Your task to perform on an android device: How do I get to the nearest McDonalds? Image 0: 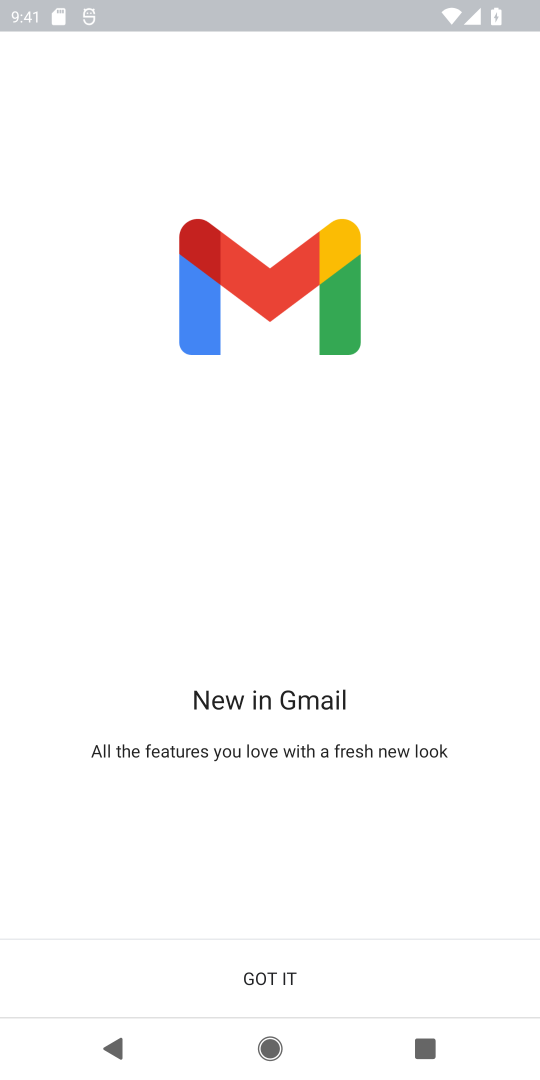
Step 0: press home button
Your task to perform on an android device: How do I get to the nearest McDonalds? Image 1: 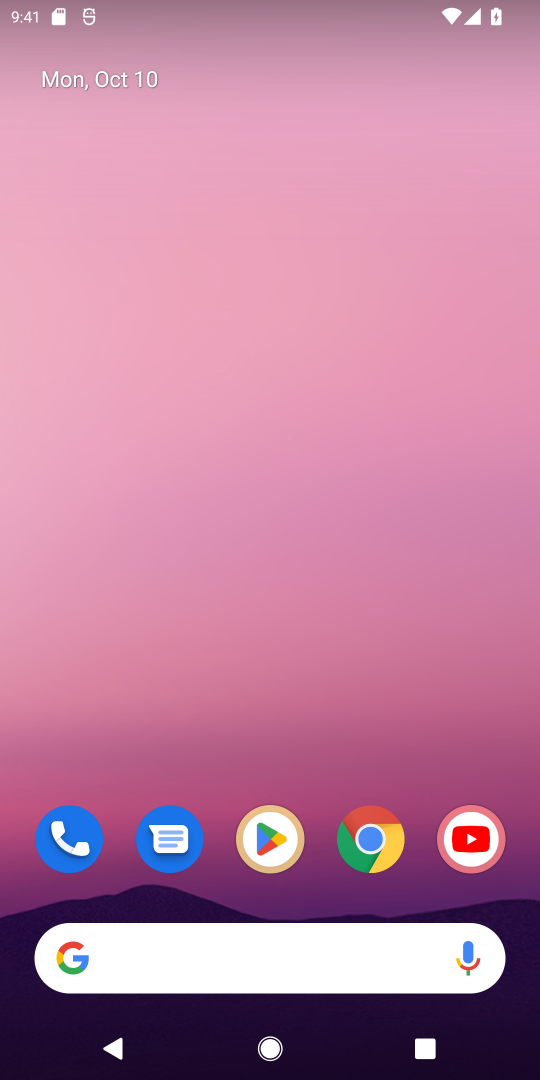
Step 1: drag from (338, 889) to (390, 95)
Your task to perform on an android device: How do I get to the nearest McDonalds? Image 2: 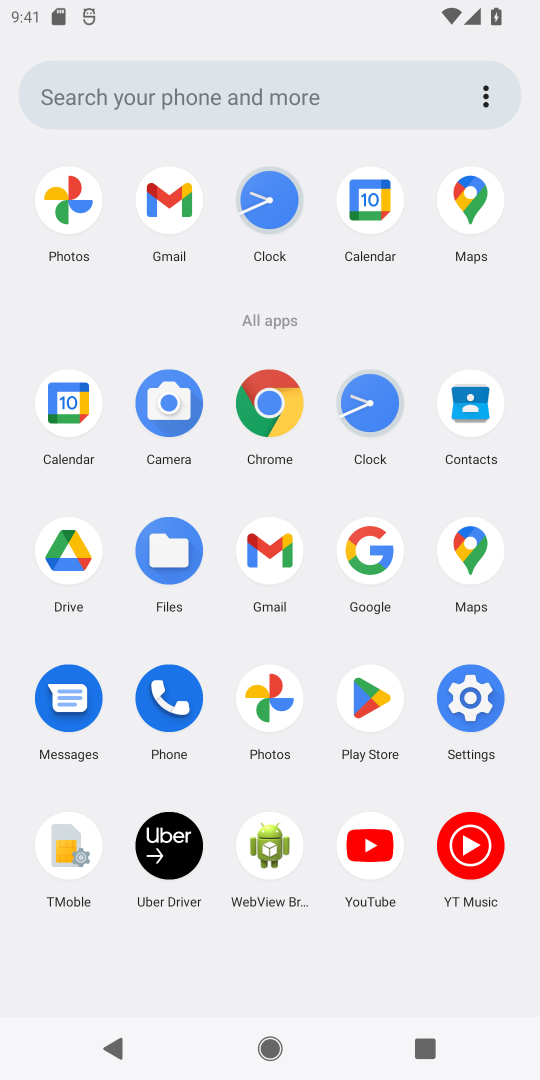
Step 2: click (271, 401)
Your task to perform on an android device: How do I get to the nearest McDonalds? Image 3: 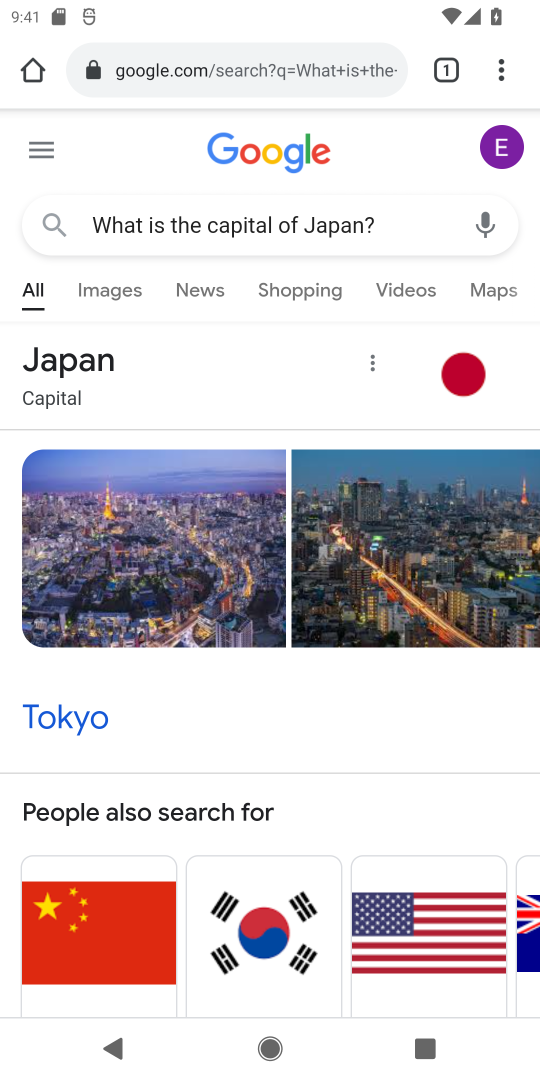
Step 3: click (278, 92)
Your task to perform on an android device: How do I get to the nearest McDonalds? Image 4: 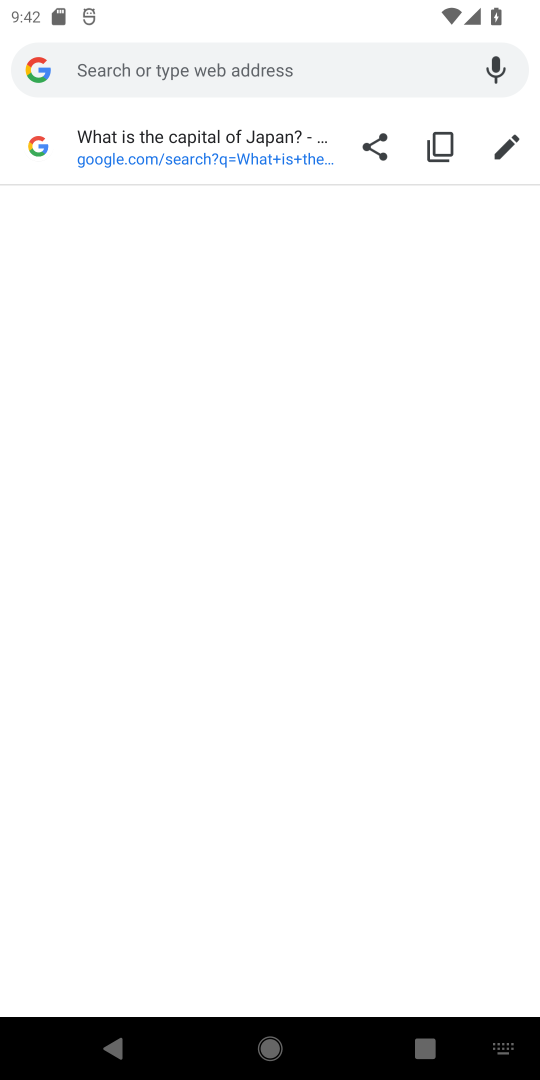
Step 4: type "How do I get to the nearest McDonalds"
Your task to perform on an android device: How do I get to the nearest McDonalds? Image 5: 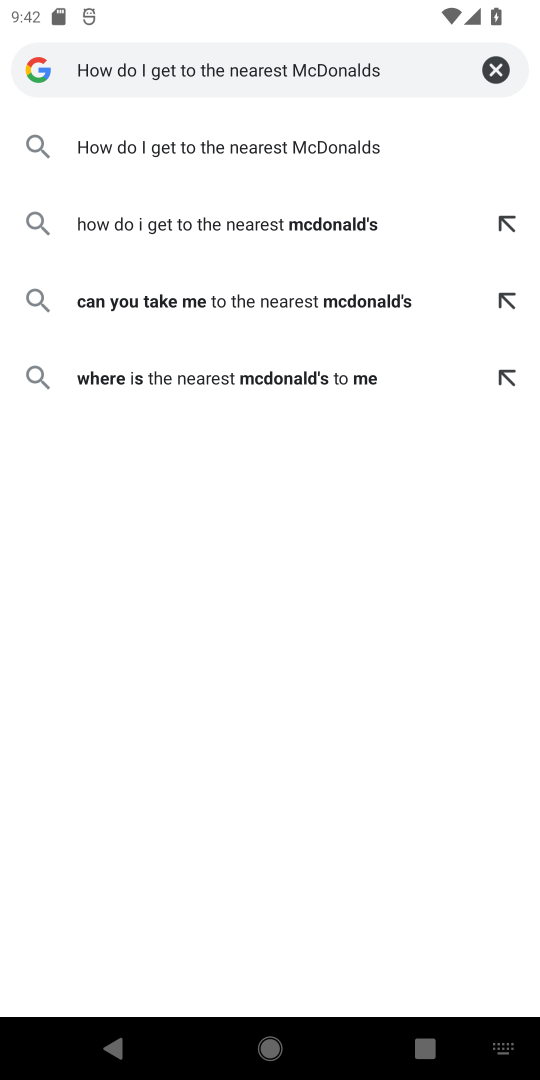
Step 5: type "?"
Your task to perform on an android device: How do I get to the nearest McDonalds? Image 6: 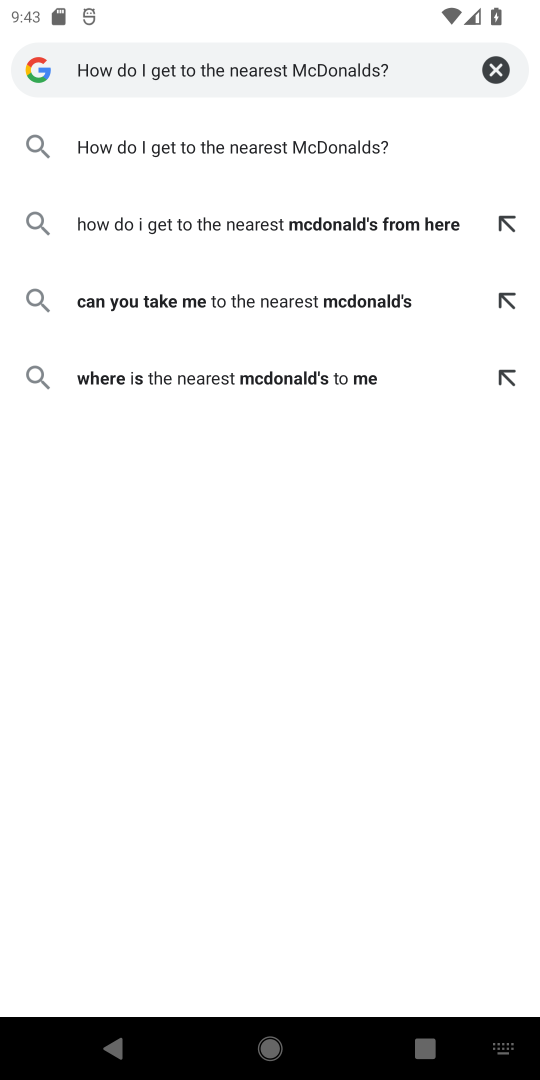
Step 6: press enter
Your task to perform on an android device: How do I get to the nearest McDonalds? Image 7: 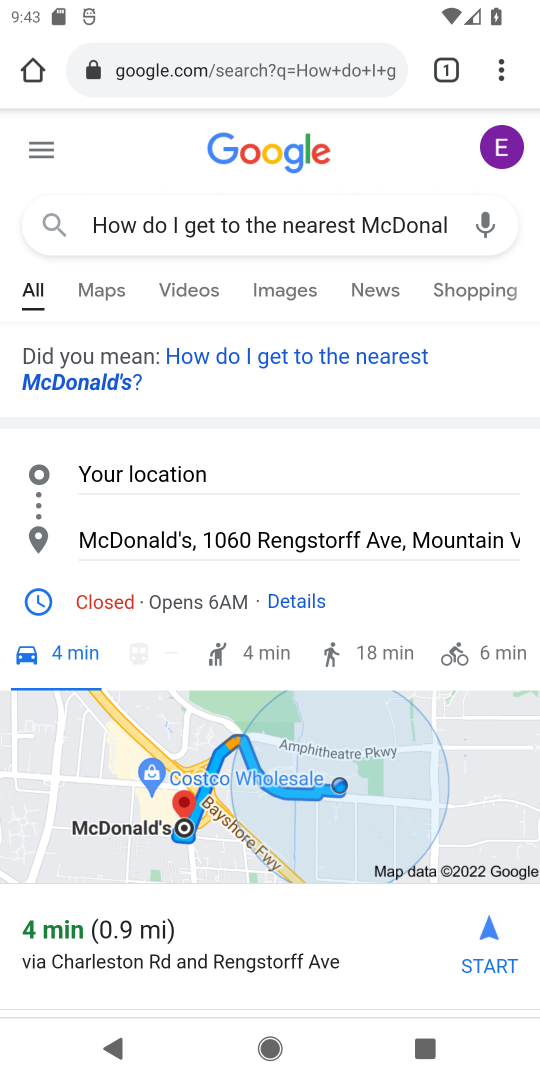
Step 7: task complete